Your task to perform on an android device: empty trash in the gmail app Image 0: 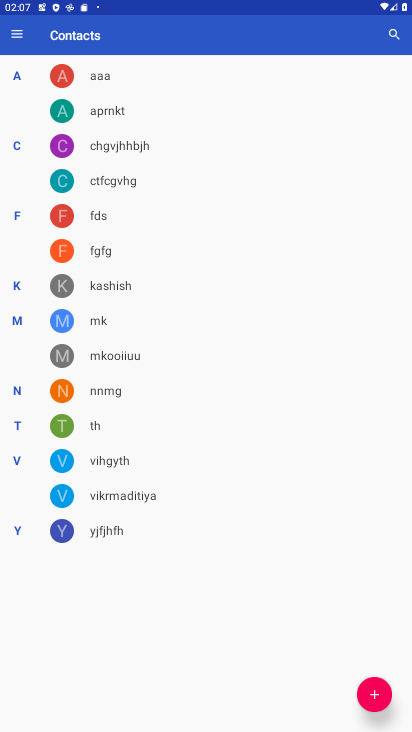
Step 0: drag from (266, 643) to (216, 4)
Your task to perform on an android device: empty trash in the gmail app Image 1: 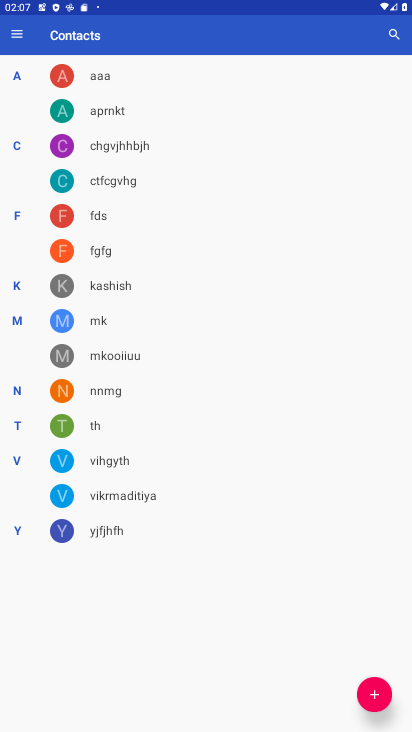
Step 1: press home button
Your task to perform on an android device: empty trash in the gmail app Image 2: 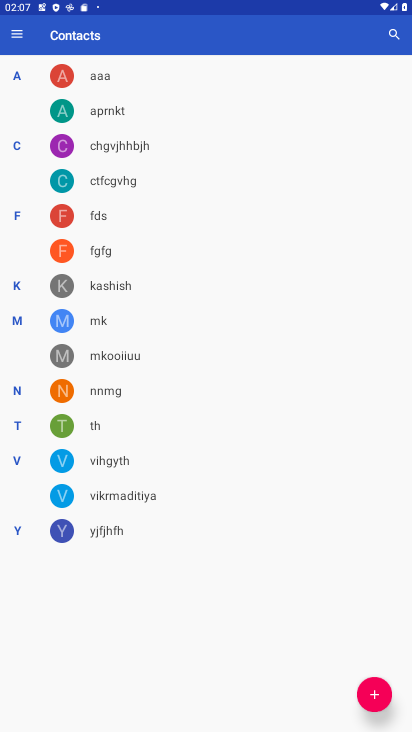
Step 2: press home button
Your task to perform on an android device: empty trash in the gmail app Image 3: 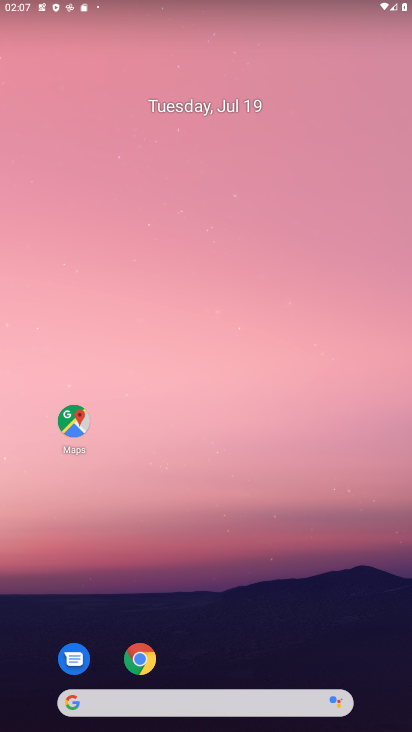
Step 3: drag from (307, 610) to (286, 39)
Your task to perform on an android device: empty trash in the gmail app Image 4: 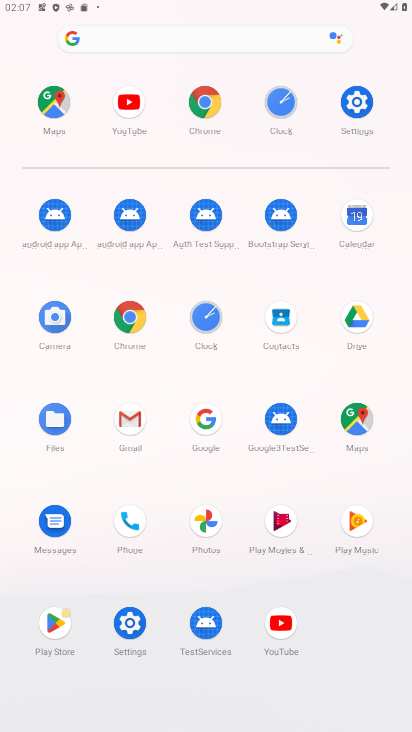
Step 4: click (126, 419)
Your task to perform on an android device: empty trash in the gmail app Image 5: 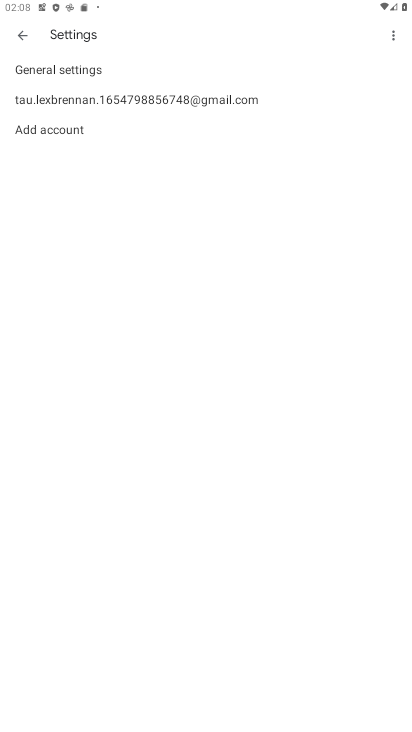
Step 5: click (17, 31)
Your task to perform on an android device: empty trash in the gmail app Image 6: 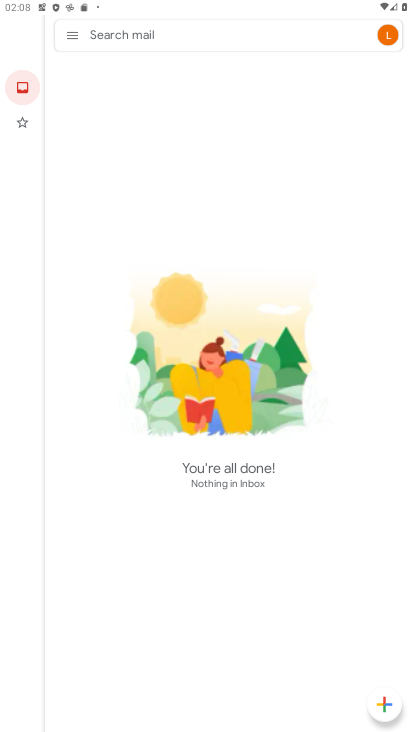
Step 6: click (68, 39)
Your task to perform on an android device: empty trash in the gmail app Image 7: 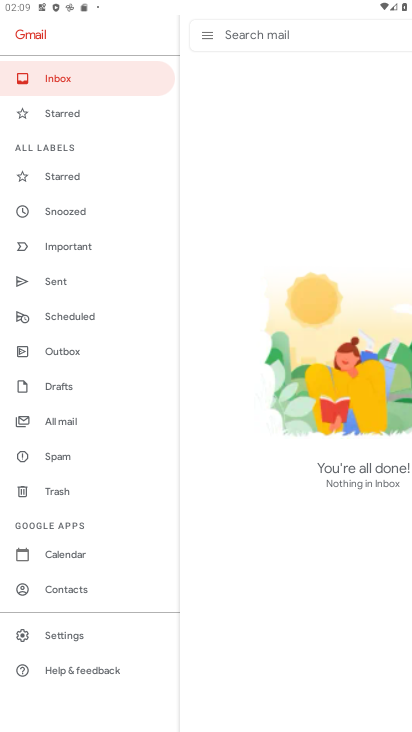
Step 7: click (62, 498)
Your task to perform on an android device: empty trash in the gmail app Image 8: 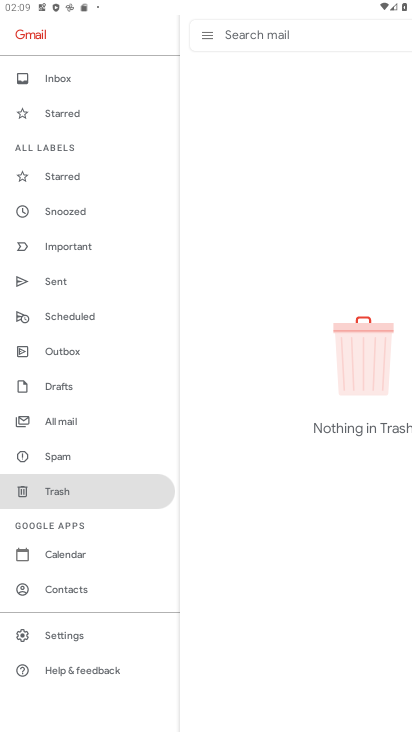
Step 8: task complete